Your task to perform on an android device: Go to battery settings Image 0: 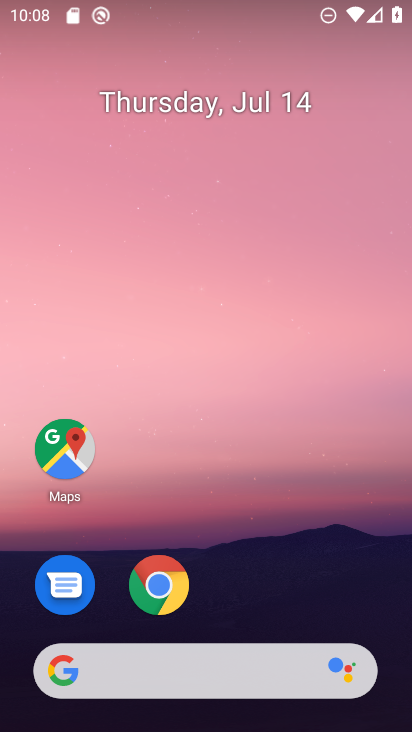
Step 0: drag from (206, 625) to (170, 44)
Your task to perform on an android device: Go to battery settings Image 1: 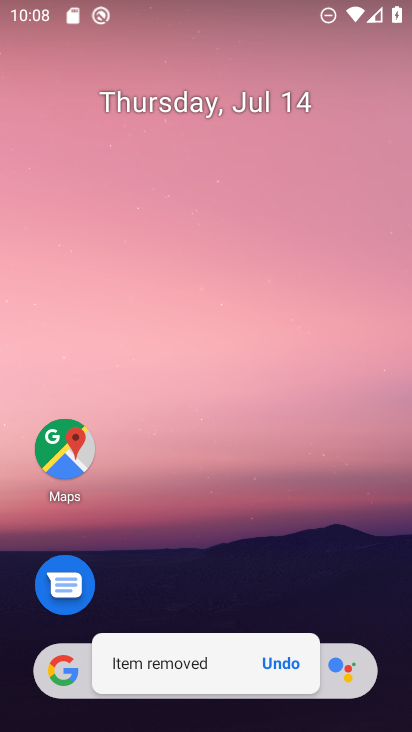
Step 1: drag from (231, 558) to (181, 110)
Your task to perform on an android device: Go to battery settings Image 2: 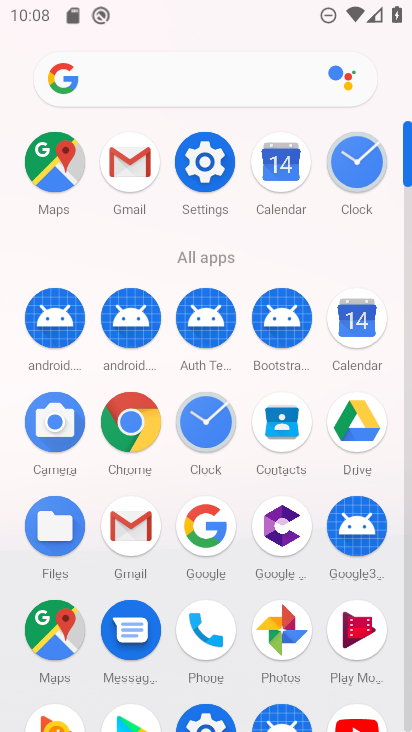
Step 2: click (207, 151)
Your task to perform on an android device: Go to battery settings Image 3: 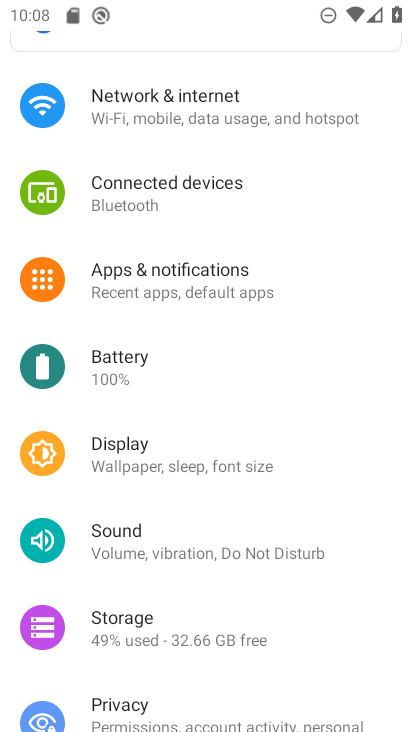
Step 3: click (143, 350)
Your task to perform on an android device: Go to battery settings Image 4: 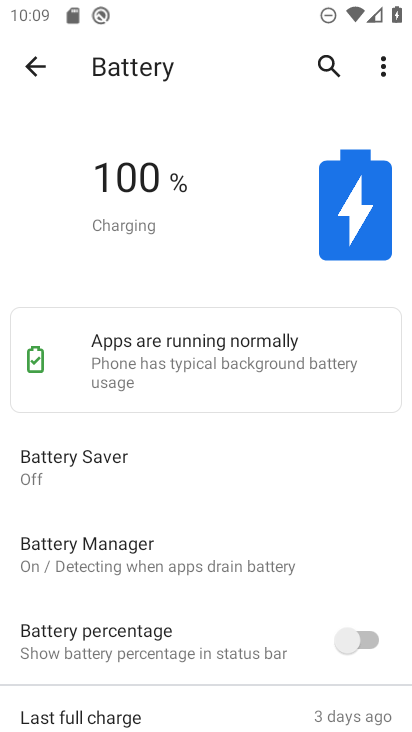
Step 4: task complete